Your task to perform on an android device: Go to Amazon Image 0: 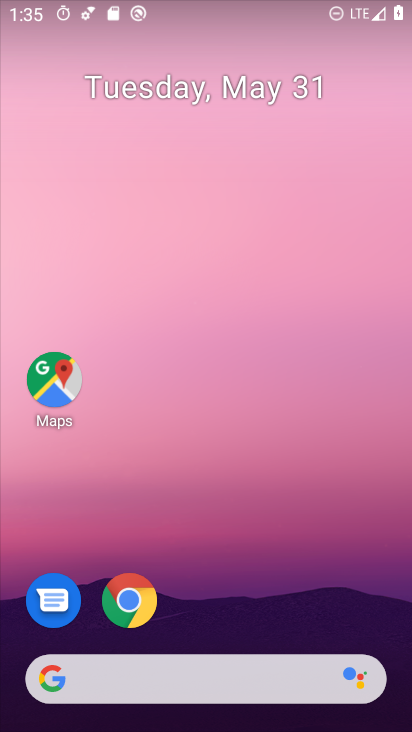
Step 0: click (128, 602)
Your task to perform on an android device: Go to Amazon Image 1: 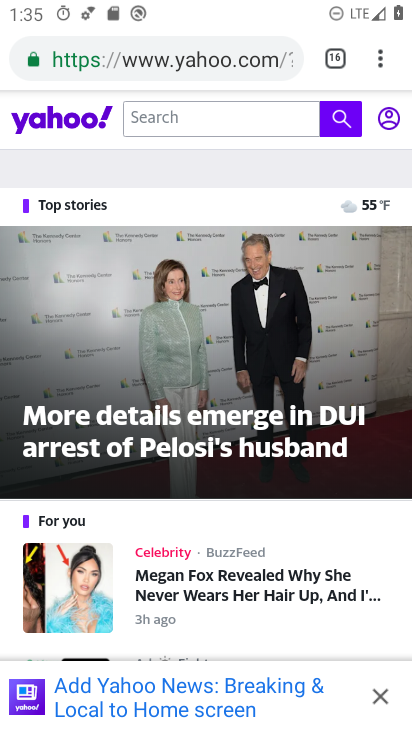
Step 1: click (379, 64)
Your task to perform on an android device: Go to Amazon Image 2: 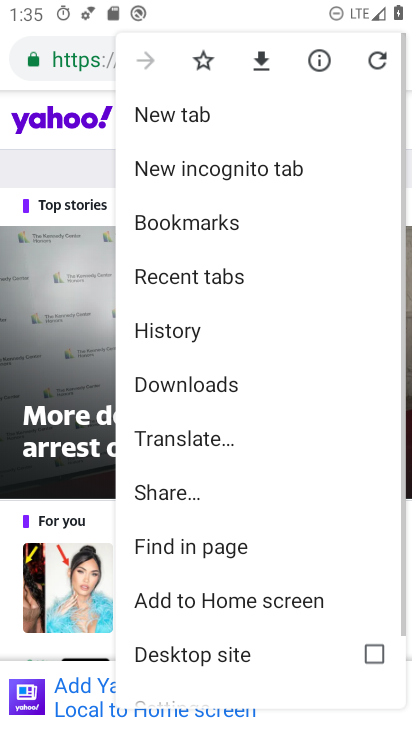
Step 2: click (175, 114)
Your task to perform on an android device: Go to Amazon Image 3: 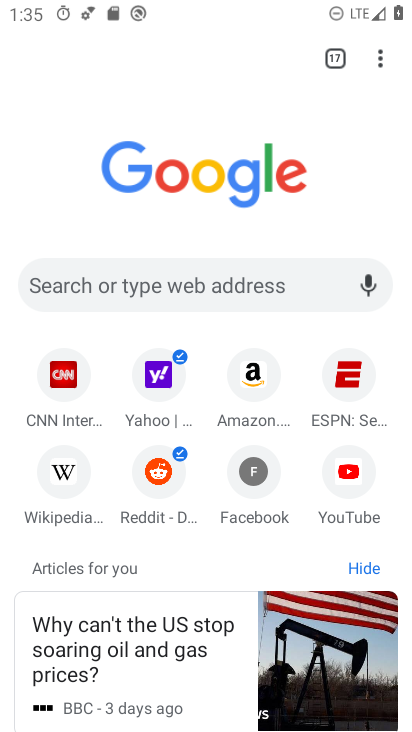
Step 3: click (249, 385)
Your task to perform on an android device: Go to Amazon Image 4: 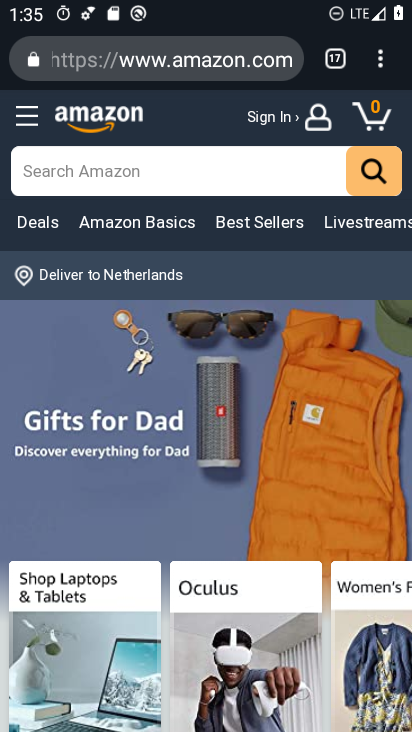
Step 4: task complete